Your task to perform on an android device: Turn on the flashlight Image 0: 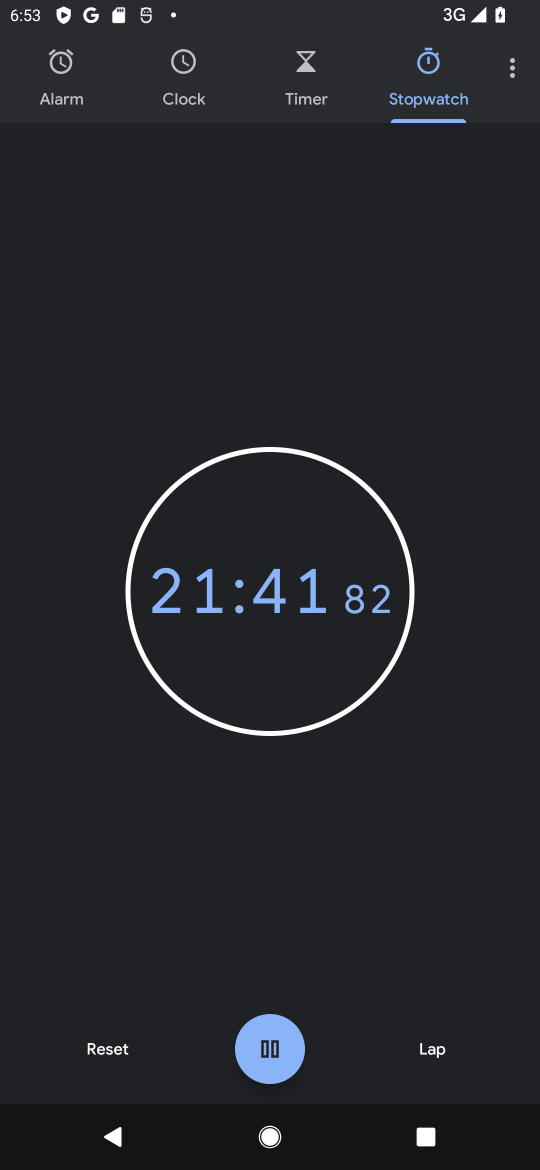
Step 0: press home button
Your task to perform on an android device: Turn on the flashlight Image 1: 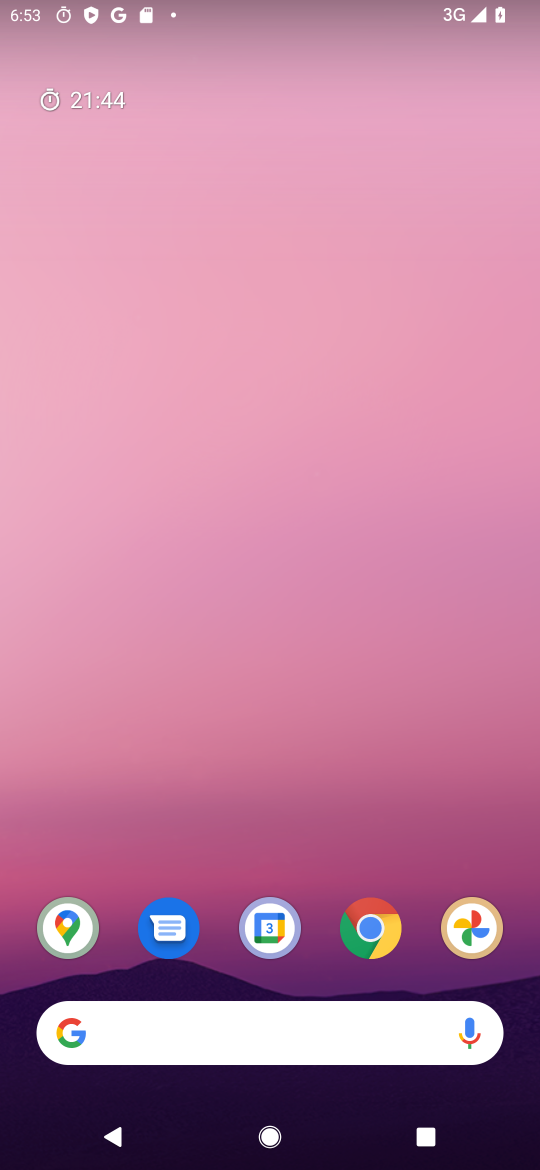
Step 1: task complete